Your task to perform on an android device: toggle airplane mode Image 0: 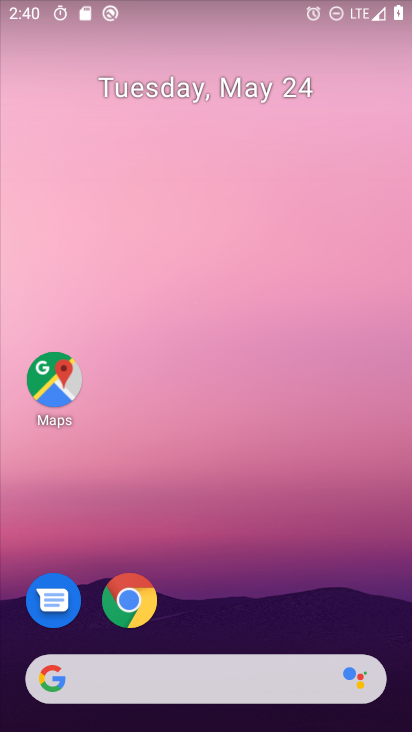
Step 0: drag from (300, 603) to (268, 168)
Your task to perform on an android device: toggle airplane mode Image 1: 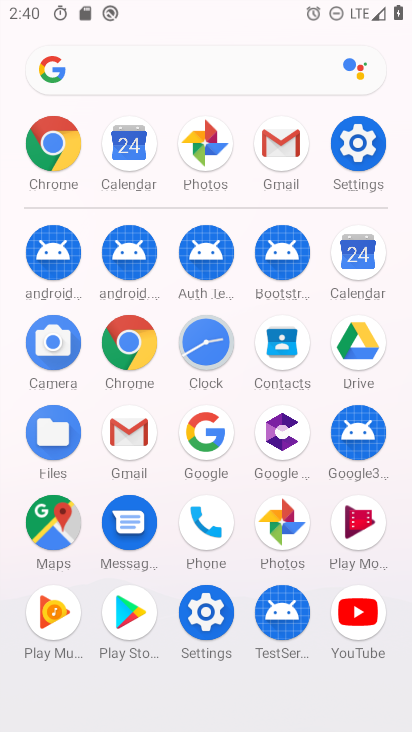
Step 1: click (372, 108)
Your task to perform on an android device: toggle airplane mode Image 2: 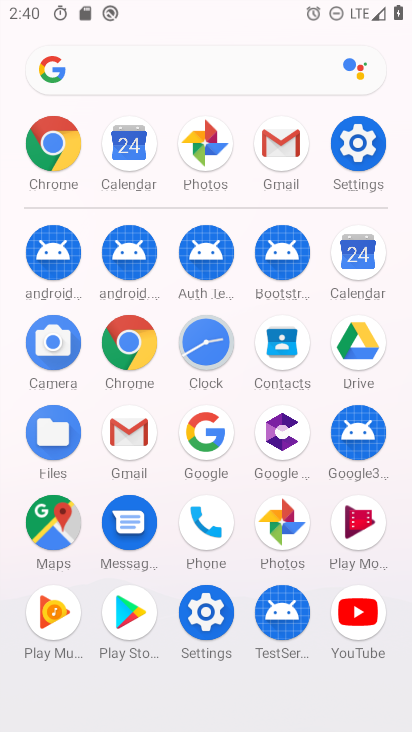
Step 2: click (346, 151)
Your task to perform on an android device: toggle airplane mode Image 3: 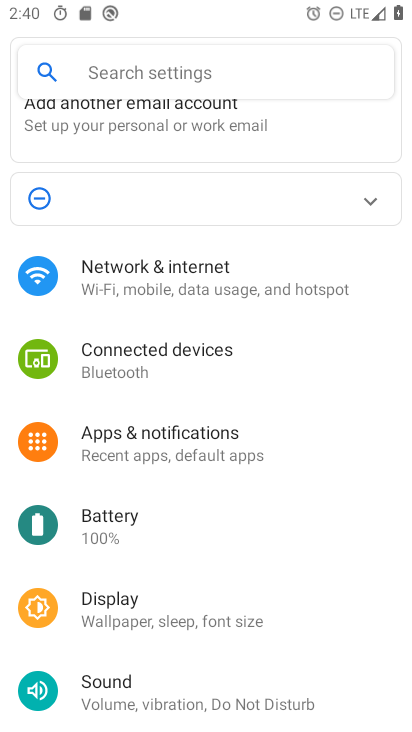
Step 3: click (219, 262)
Your task to perform on an android device: toggle airplane mode Image 4: 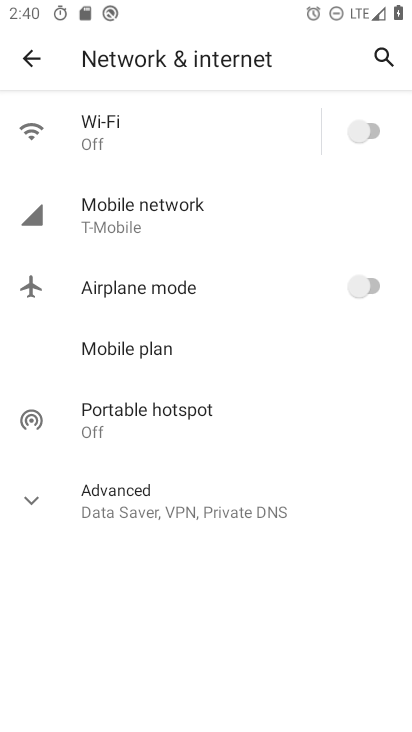
Step 4: click (353, 291)
Your task to perform on an android device: toggle airplane mode Image 5: 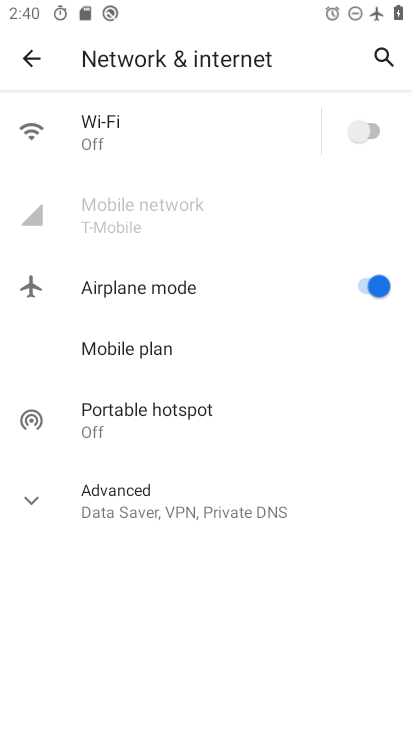
Step 5: task complete